Your task to perform on an android device: Open Reddit.com Image 0: 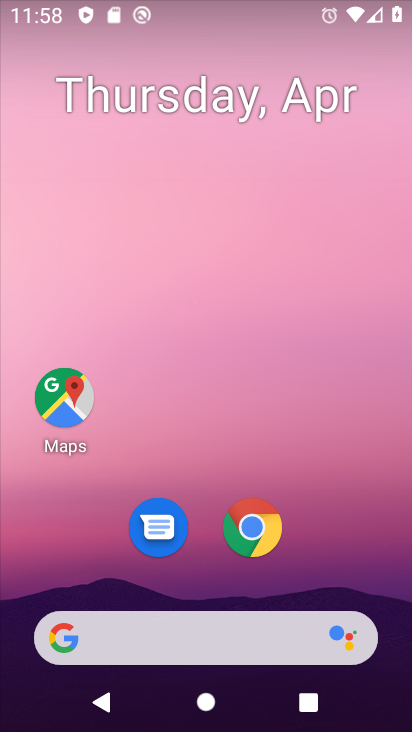
Step 0: click (215, 642)
Your task to perform on an android device: Open Reddit.com Image 1: 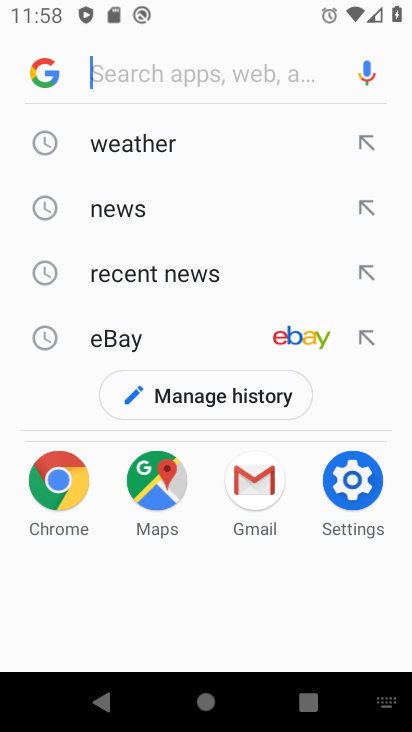
Step 1: type "Reddit.com"
Your task to perform on an android device: Open Reddit.com Image 2: 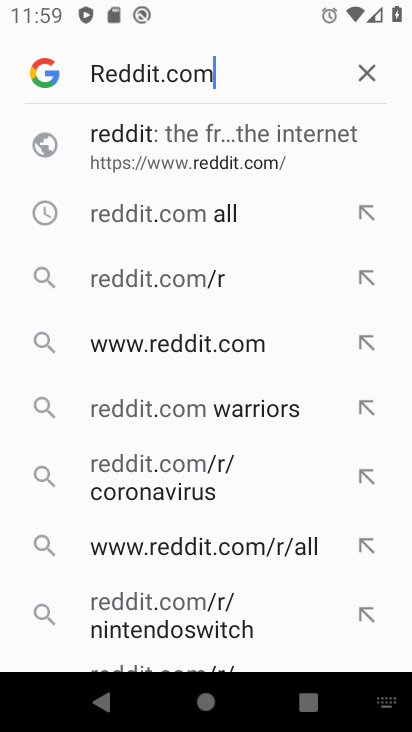
Step 2: click (208, 347)
Your task to perform on an android device: Open Reddit.com Image 3: 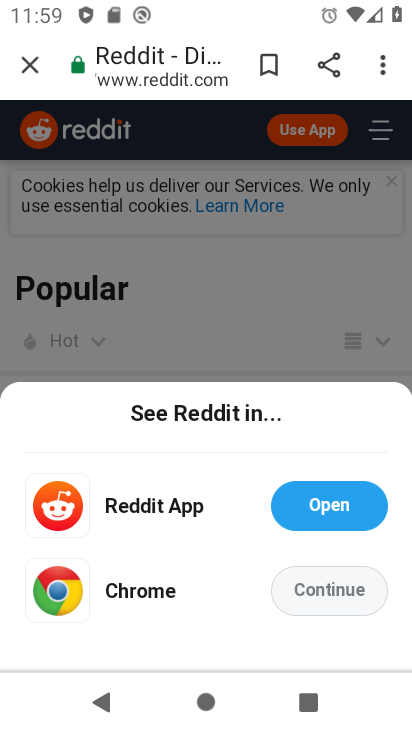
Step 3: click (319, 581)
Your task to perform on an android device: Open Reddit.com Image 4: 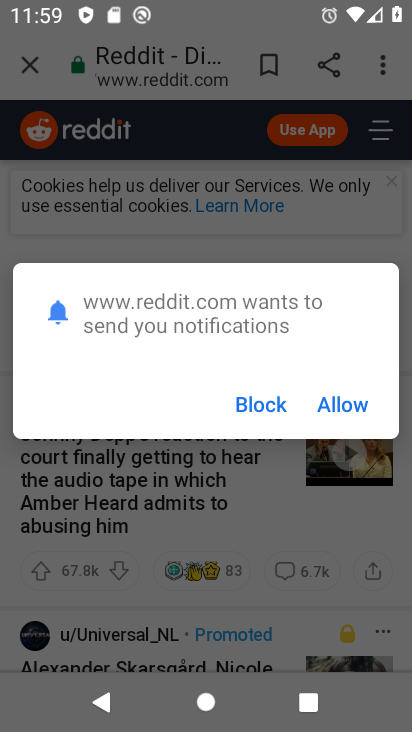
Step 4: click (346, 408)
Your task to perform on an android device: Open Reddit.com Image 5: 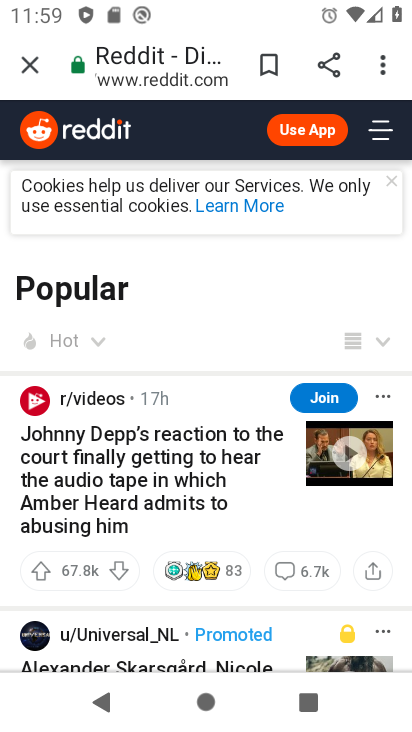
Step 5: task complete